Your task to perform on an android device: check battery use Image 0: 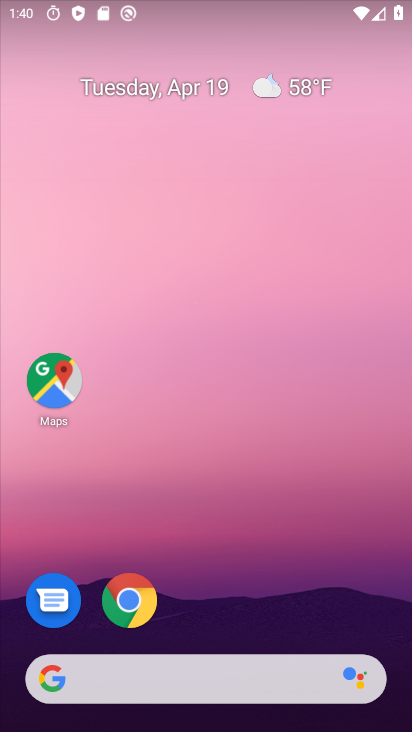
Step 0: drag from (235, 700) to (411, 238)
Your task to perform on an android device: check battery use Image 1: 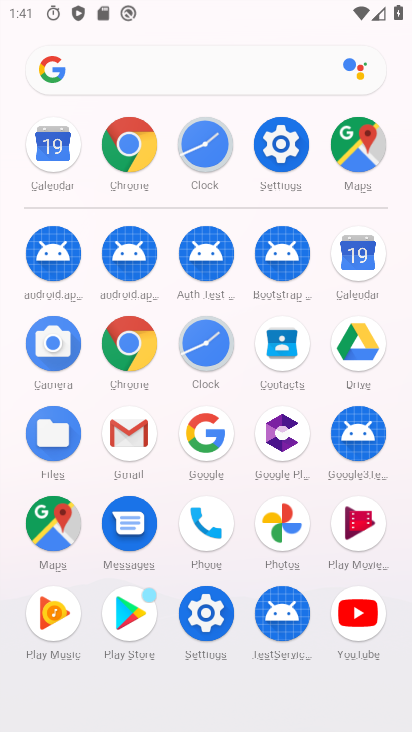
Step 1: click (287, 169)
Your task to perform on an android device: check battery use Image 2: 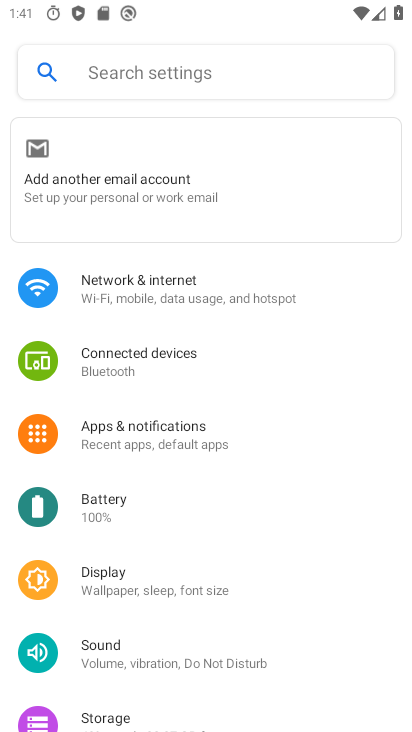
Step 2: click (196, 74)
Your task to perform on an android device: check battery use Image 3: 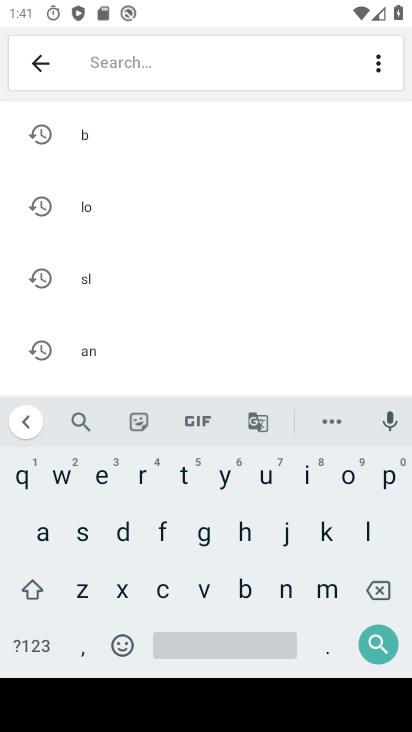
Step 3: click (147, 139)
Your task to perform on an android device: check battery use Image 4: 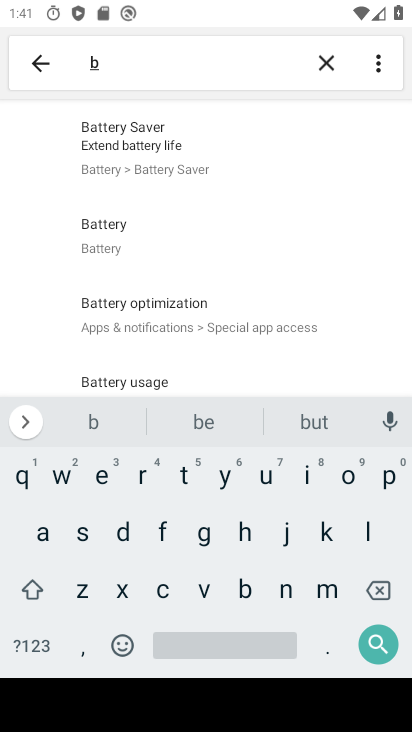
Step 4: click (100, 371)
Your task to perform on an android device: check battery use Image 5: 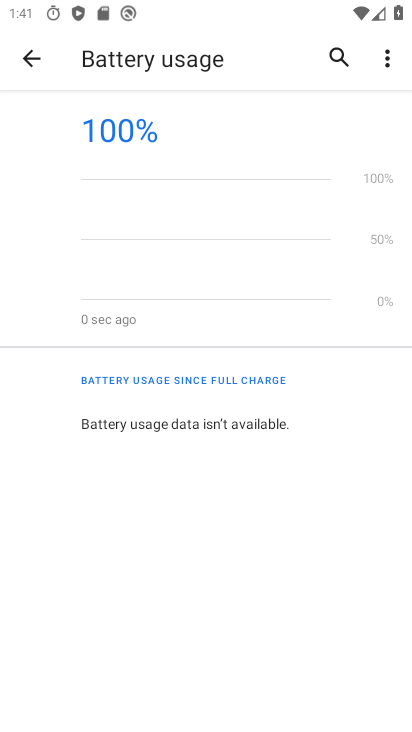
Step 5: task complete